Your task to perform on an android device: change the clock display to analog Image 0: 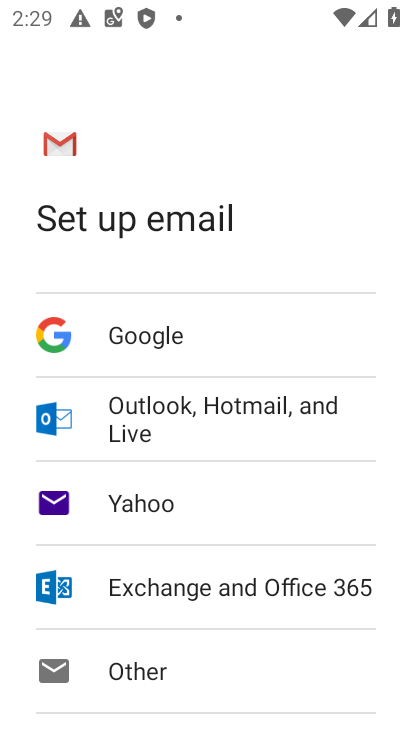
Step 0: press home button
Your task to perform on an android device: change the clock display to analog Image 1: 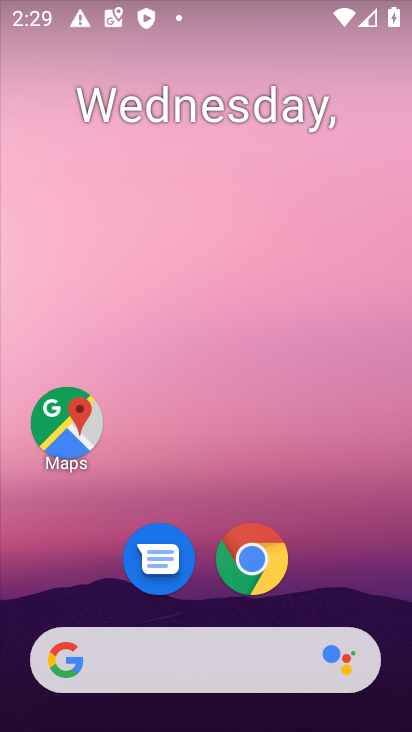
Step 1: drag from (197, 600) to (219, 37)
Your task to perform on an android device: change the clock display to analog Image 2: 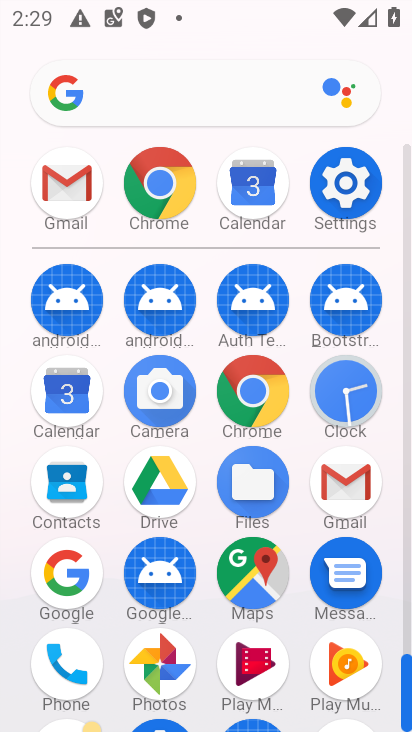
Step 2: click (344, 401)
Your task to perform on an android device: change the clock display to analog Image 3: 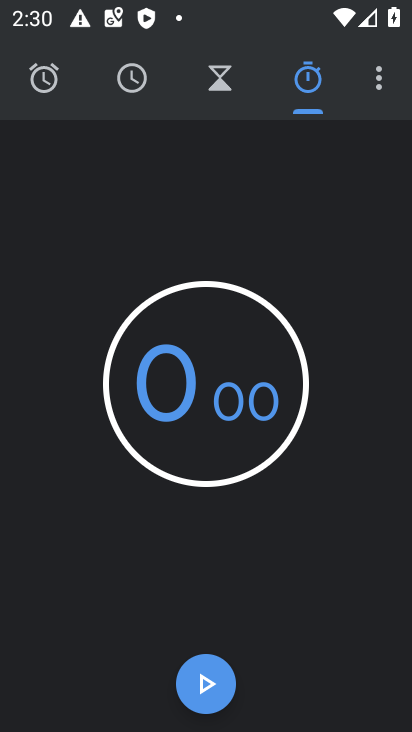
Step 3: click (380, 89)
Your task to perform on an android device: change the clock display to analog Image 4: 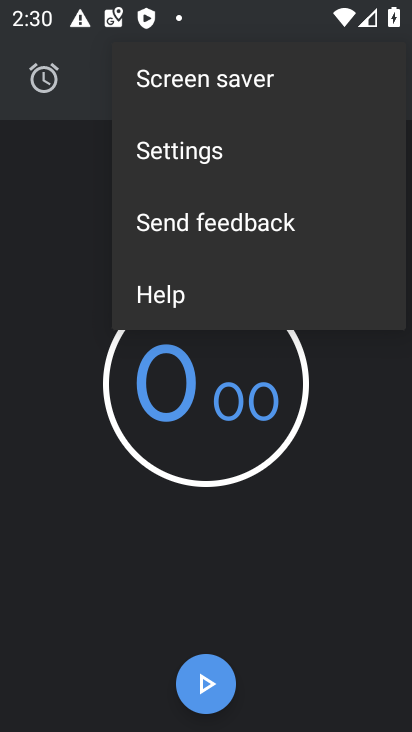
Step 4: click (186, 149)
Your task to perform on an android device: change the clock display to analog Image 5: 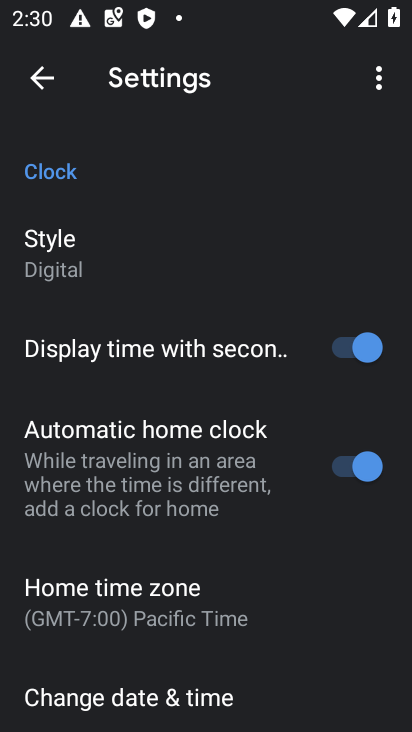
Step 5: click (48, 257)
Your task to perform on an android device: change the clock display to analog Image 6: 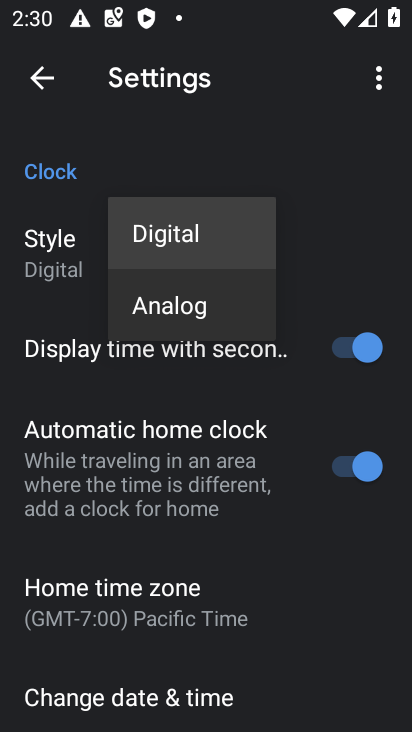
Step 6: click (151, 308)
Your task to perform on an android device: change the clock display to analog Image 7: 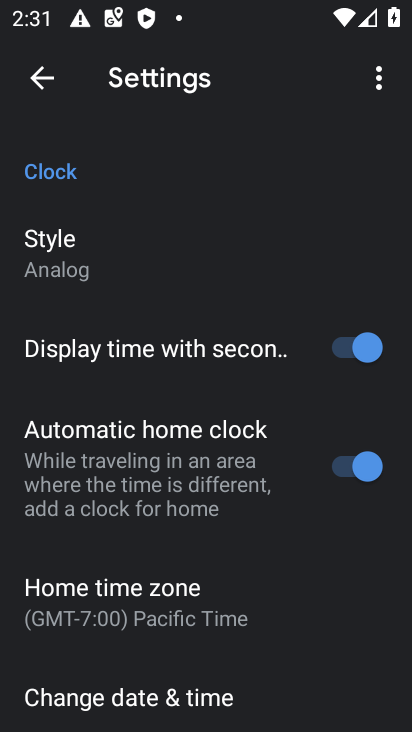
Step 7: task complete